Your task to perform on an android device: set an alarm Image 0: 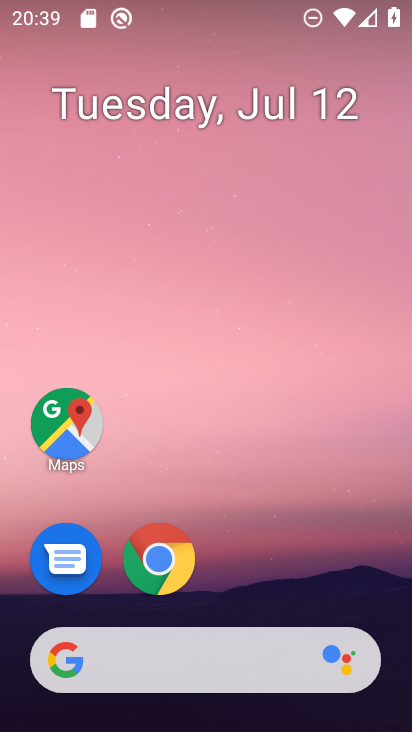
Step 0: drag from (365, 592) to (362, 160)
Your task to perform on an android device: set an alarm Image 1: 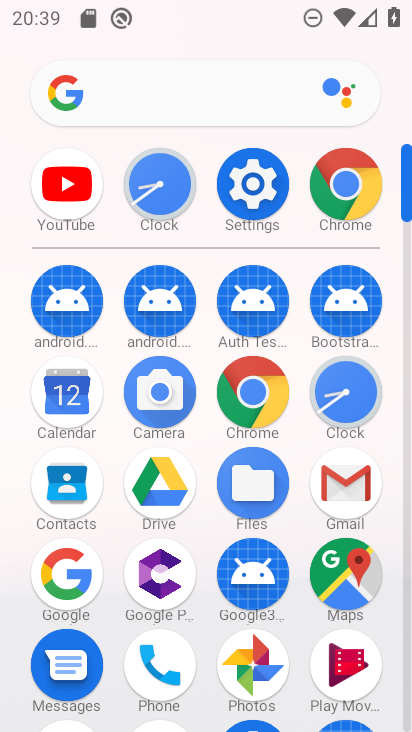
Step 1: click (163, 194)
Your task to perform on an android device: set an alarm Image 2: 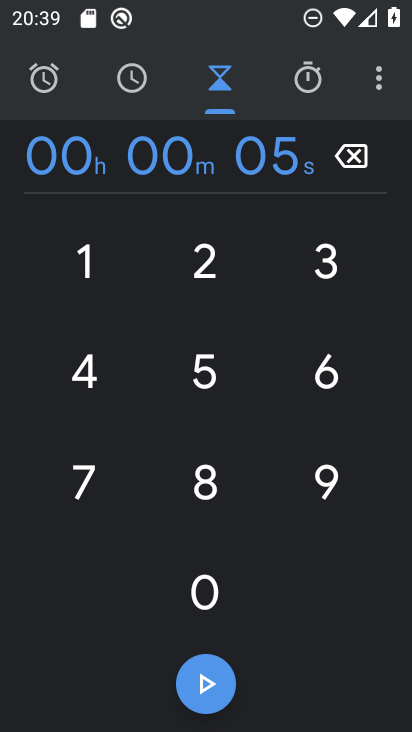
Step 2: click (57, 86)
Your task to perform on an android device: set an alarm Image 3: 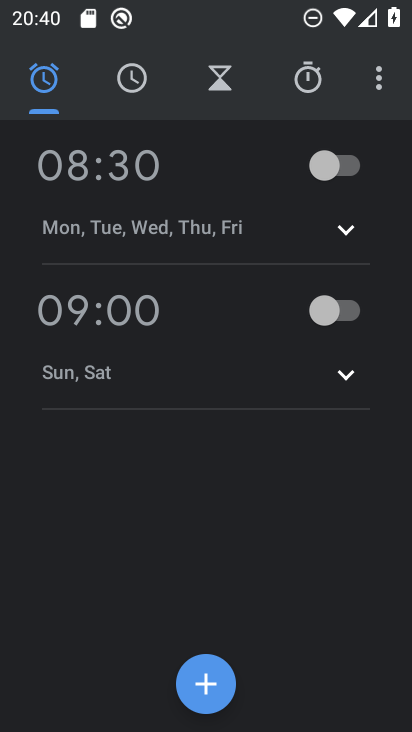
Step 3: click (217, 684)
Your task to perform on an android device: set an alarm Image 4: 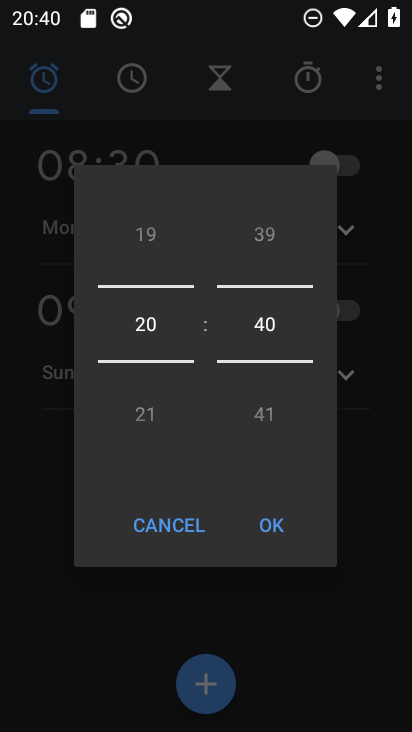
Step 4: click (273, 520)
Your task to perform on an android device: set an alarm Image 5: 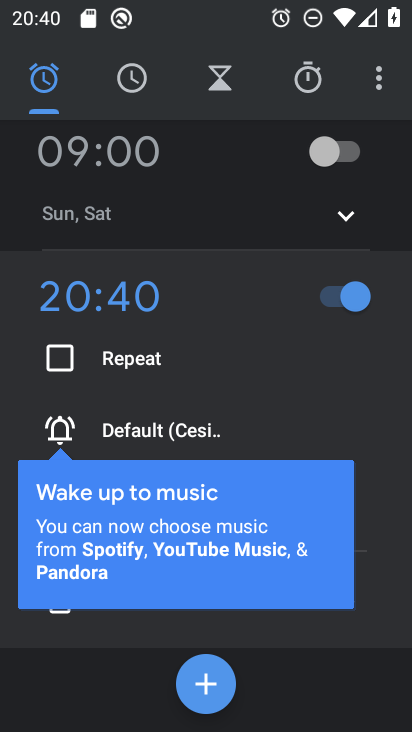
Step 5: task complete